Your task to perform on an android device: Go to Maps Image 0: 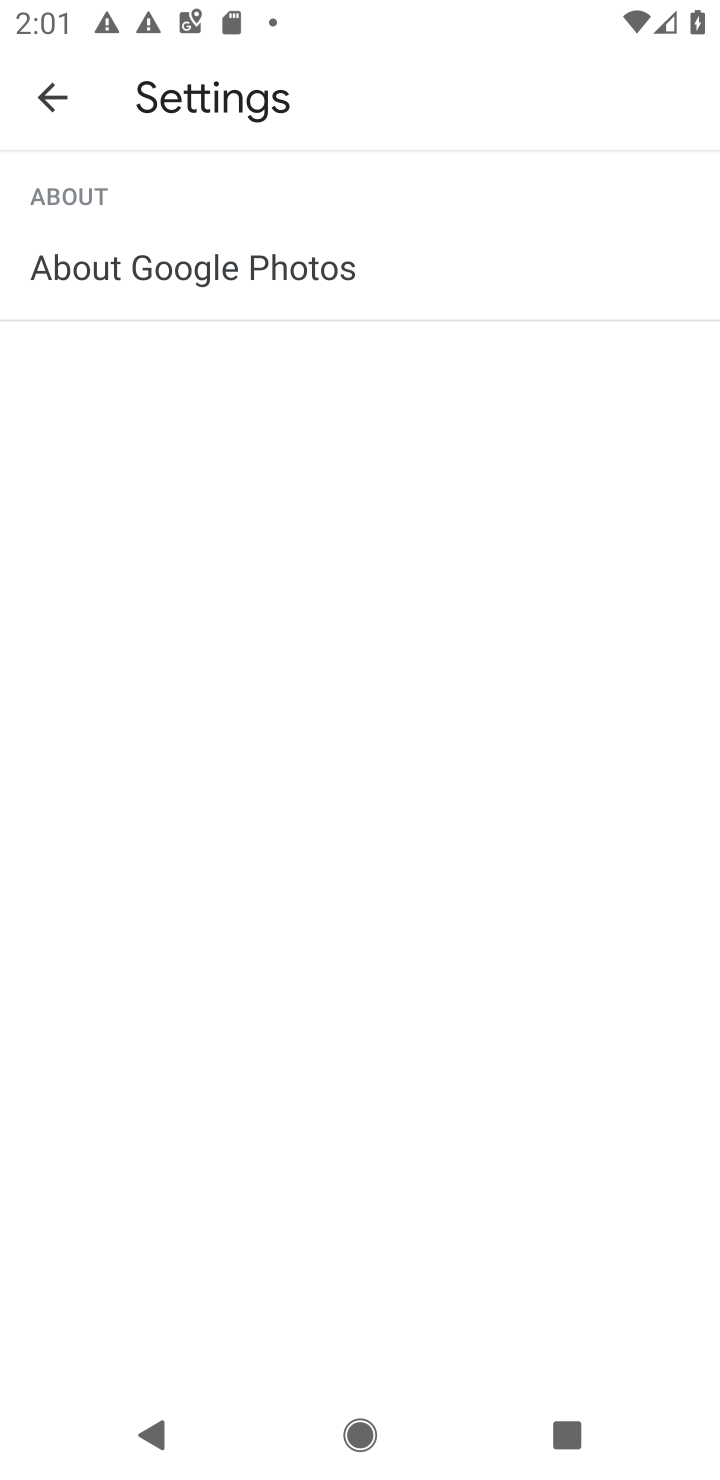
Step 0: press home button
Your task to perform on an android device: Go to Maps Image 1: 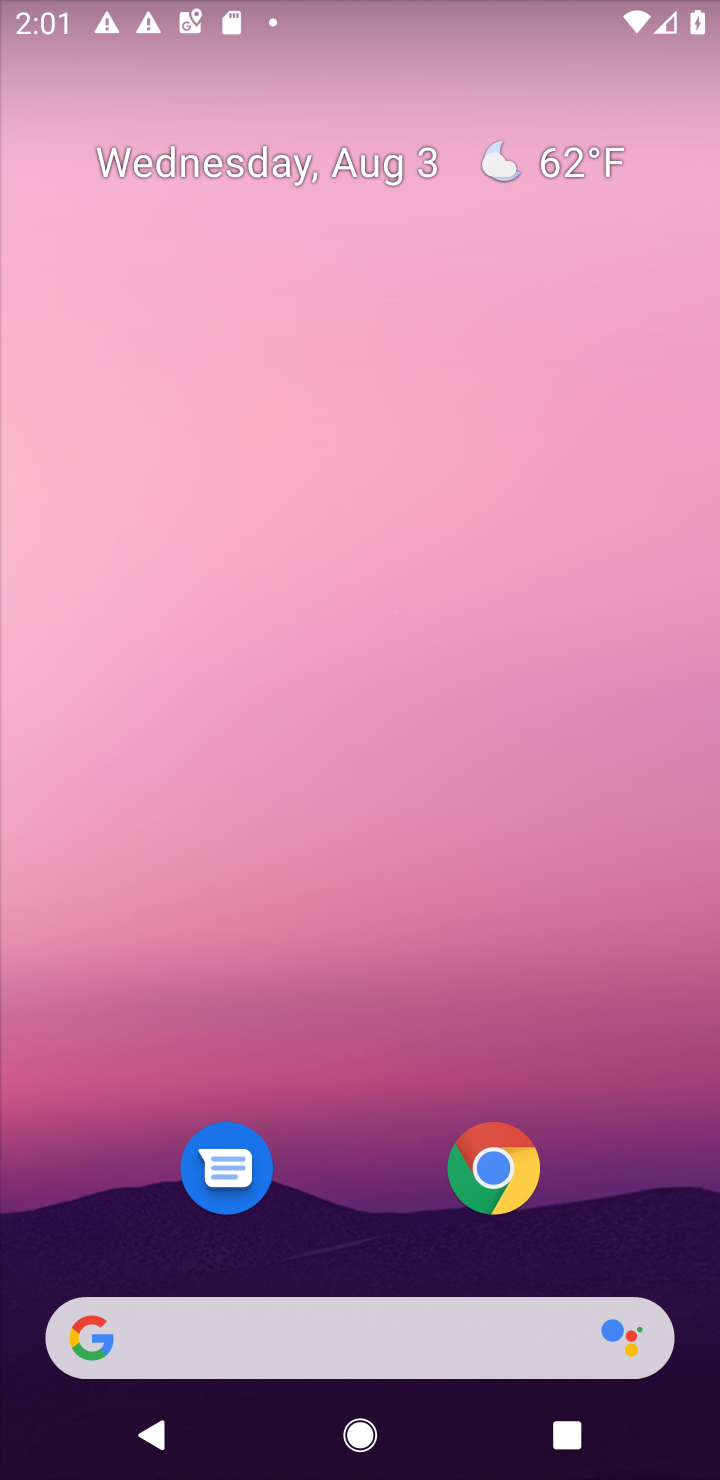
Step 1: drag from (642, 1162) to (573, 313)
Your task to perform on an android device: Go to Maps Image 2: 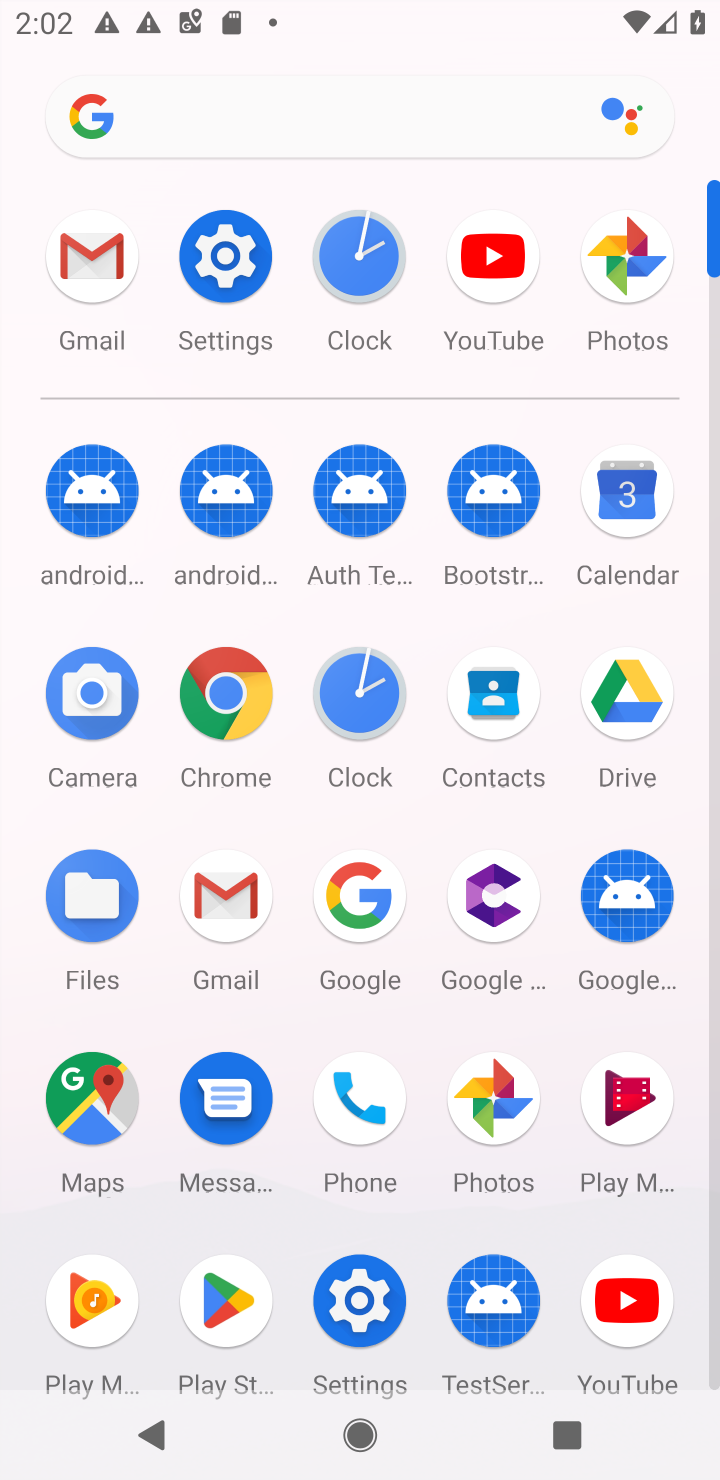
Step 2: click (89, 1103)
Your task to perform on an android device: Go to Maps Image 3: 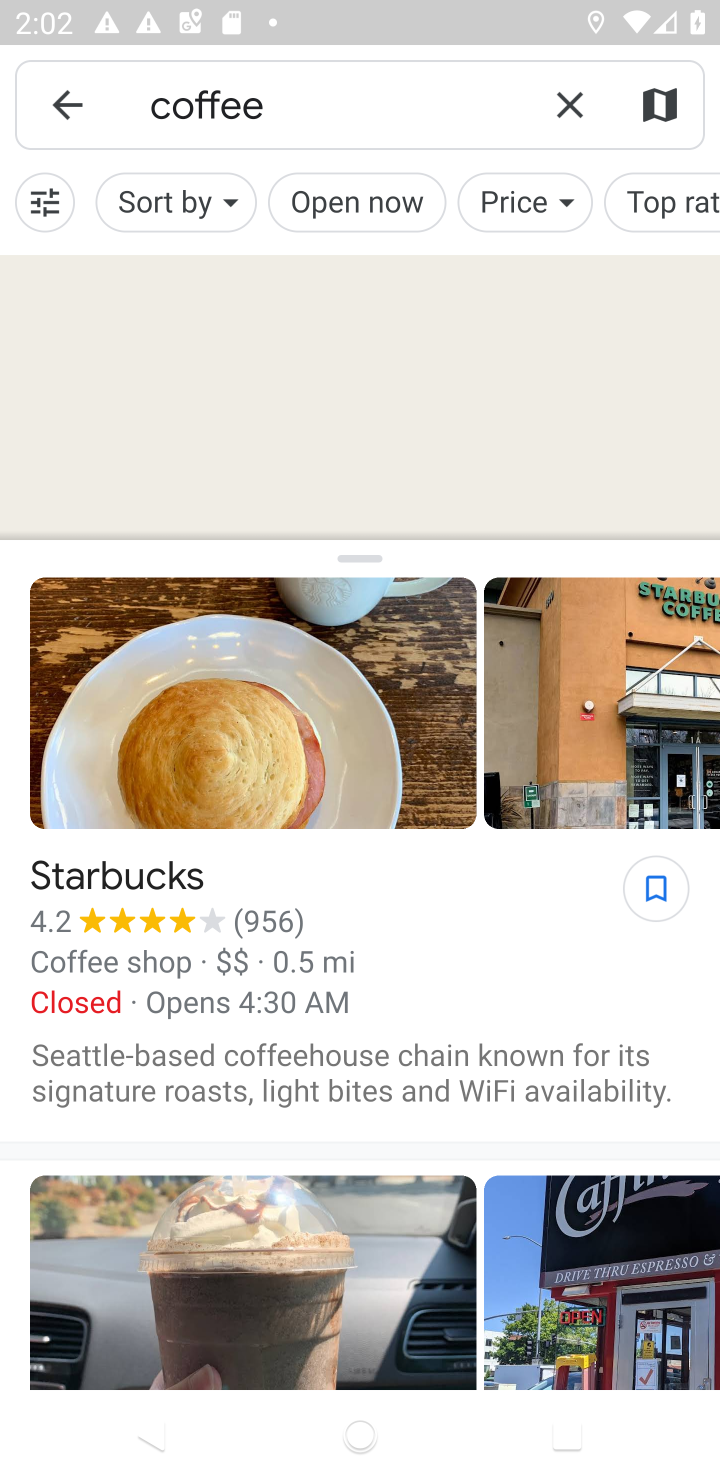
Step 3: click (566, 102)
Your task to perform on an android device: Go to Maps Image 4: 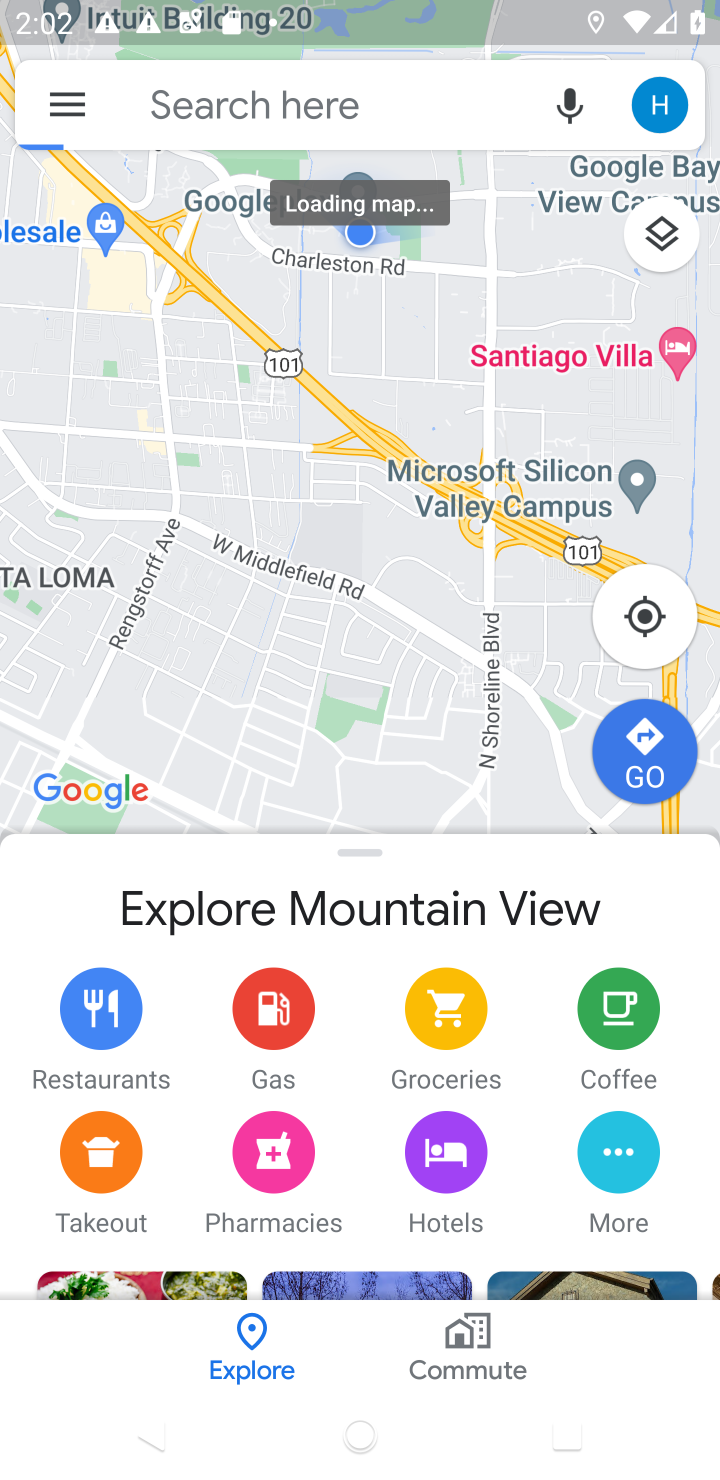
Step 4: task complete